Your task to perform on an android device: set the stopwatch Image 0: 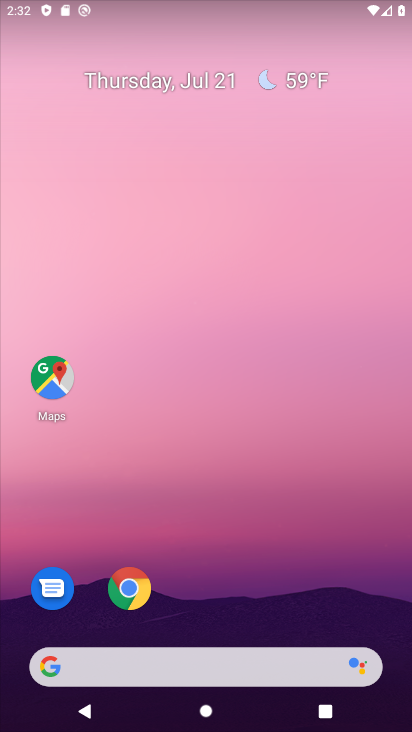
Step 0: click (208, 270)
Your task to perform on an android device: set the stopwatch Image 1: 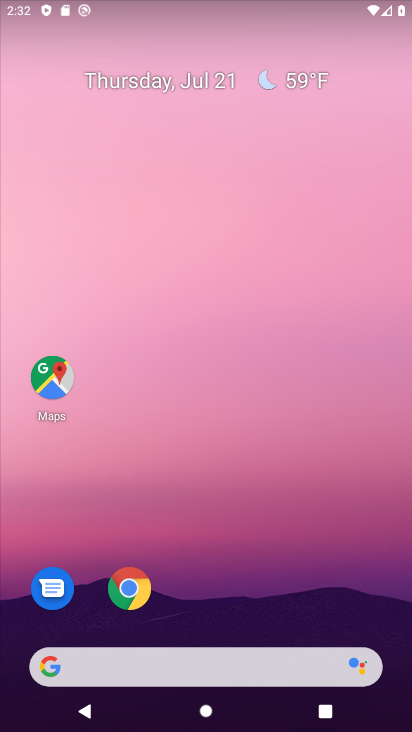
Step 1: drag from (384, 659) to (302, 107)
Your task to perform on an android device: set the stopwatch Image 2: 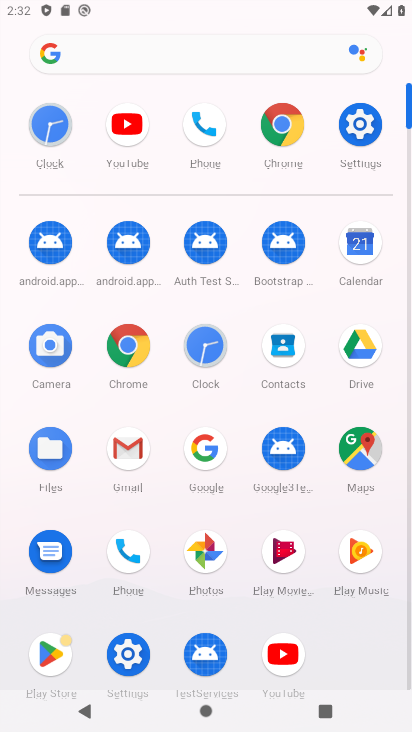
Step 2: click (210, 344)
Your task to perform on an android device: set the stopwatch Image 3: 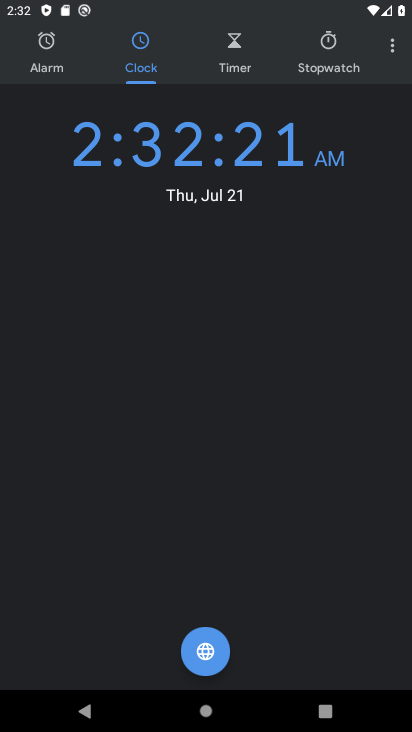
Step 3: click (321, 50)
Your task to perform on an android device: set the stopwatch Image 4: 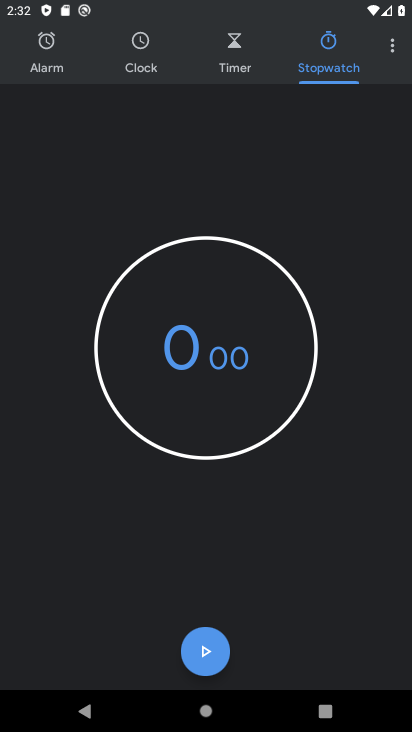
Step 4: click (200, 638)
Your task to perform on an android device: set the stopwatch Image 5: 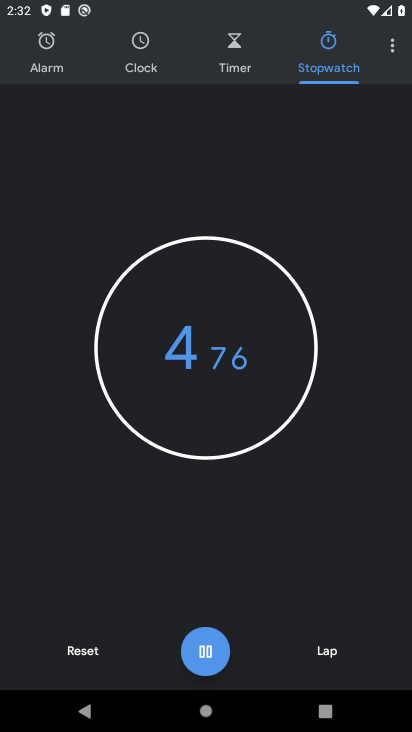
Step 5: task complete